Your task to perform on an android device: change notification settings in the gmail app Image 0: 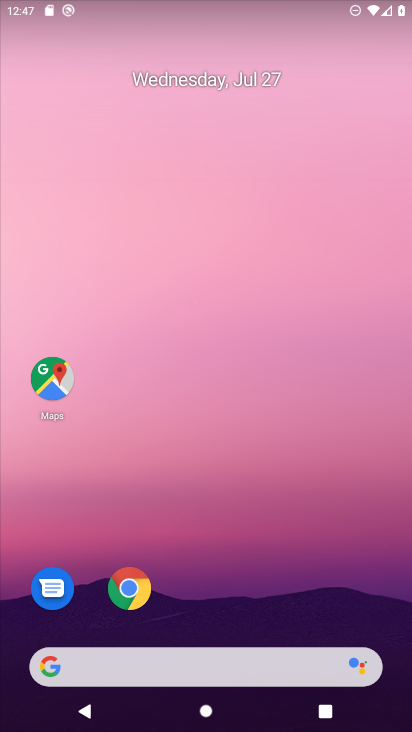
Step 0: drag from (201, 393) to (259, 245)
Your task to perform on an android device: change notification settings in the gmail app Image 1: 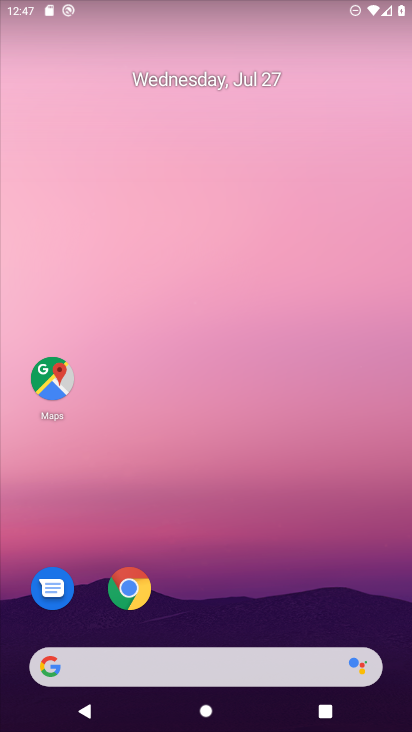
Step 1: drag from (12, 691) to (221, 50)
Your task to perform on an android device: change notification settings in the gmail app Image 2: 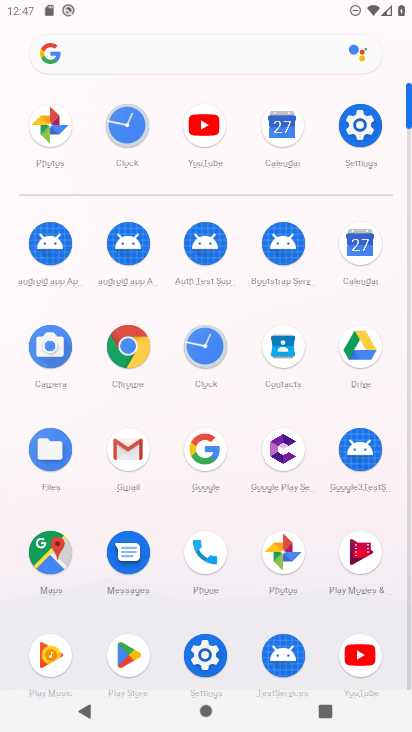
Step 2: click (133, 444)
Your task to perform on an android device: change notification settings in the gmail app Image 3: 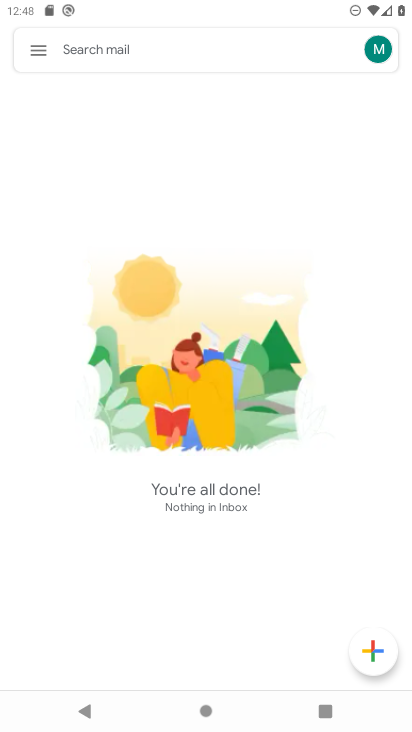
Step 3: click (39, 59)
Your task to perform on an android device: change notification settings in the gmail app Image 4: 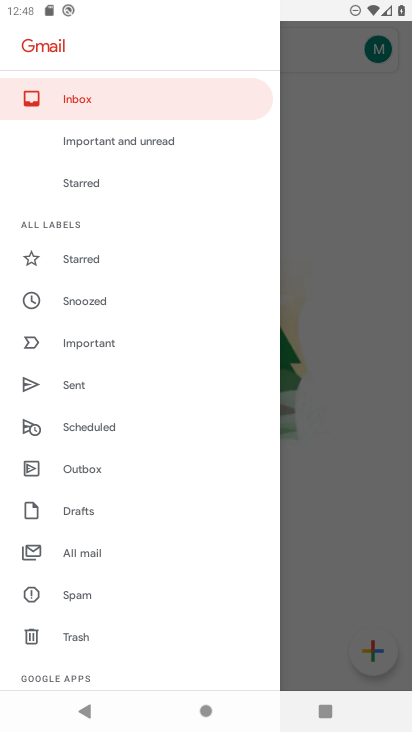
Step 4: drag from (181, 635) to (176, 67)
Your task to perform on an android device: change notification settings in the gmail app Image 5: 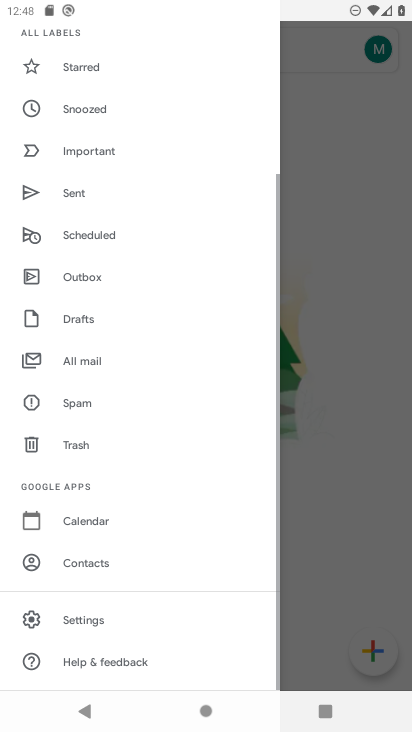
Step 5: click (100, 619)
Your task to perform on an android device: change notification settings in the gmail app Image 6: 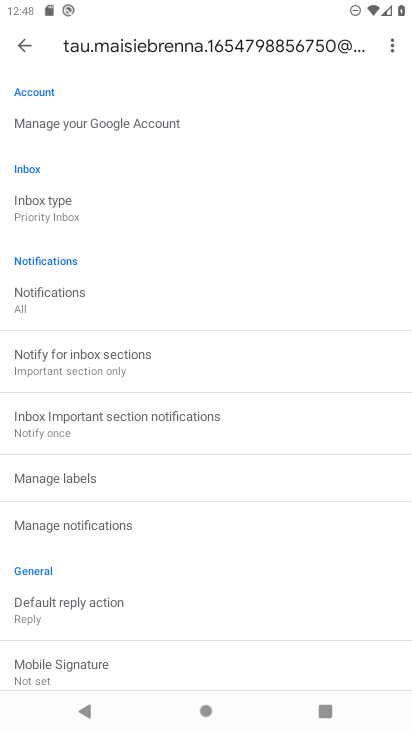
Step 6: click (54, 312)
Your task to perform on an android device: change notification settings in the gmail app Image 7: 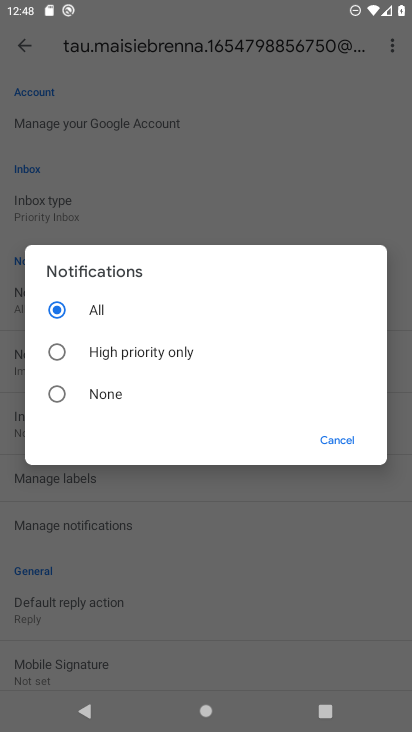
Step 7: task complete